Your task to perform on an android device: read, delete, or share a saved page in the chrome app Image 0: 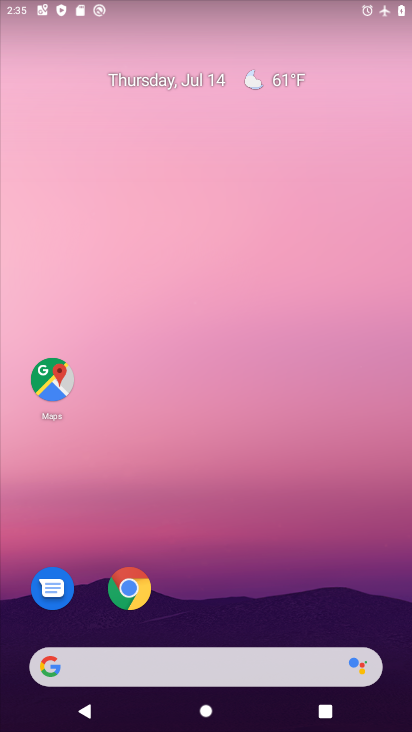
Step 0: drag from (222, 636) to (261, 298)
Your task to perform on an android device: read, delete, or share a saved page in the chrome app Image 1: 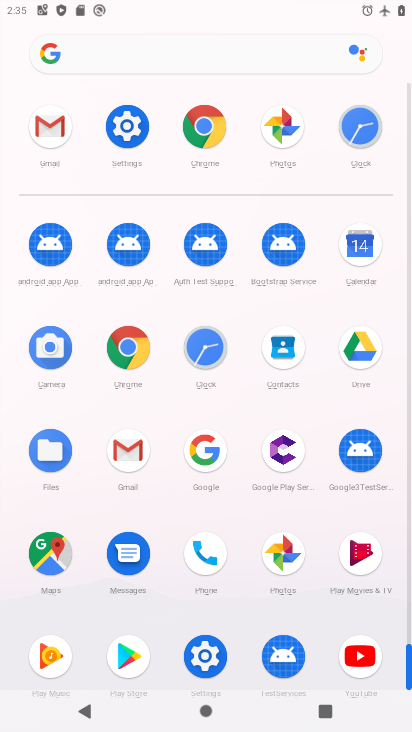
Step 1: click (200, 113)
Your task to perform on an android device: read, delete, or share a saved page in the chrome app Image 2: 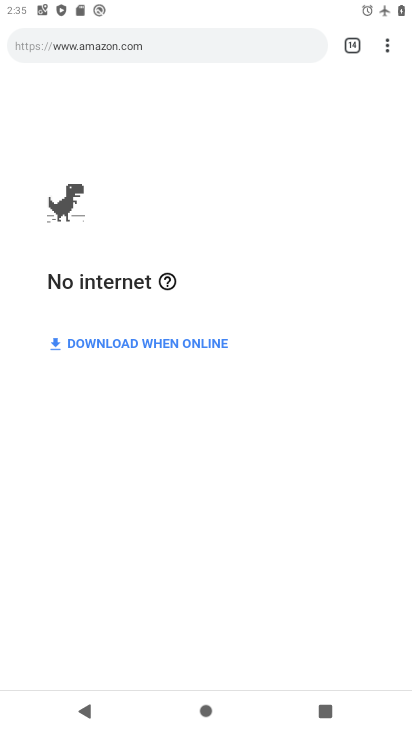
Step 2: click (388, 41)
Your task to perform on an android device: read, delete, or share a saved page in the chrome app Image 3: 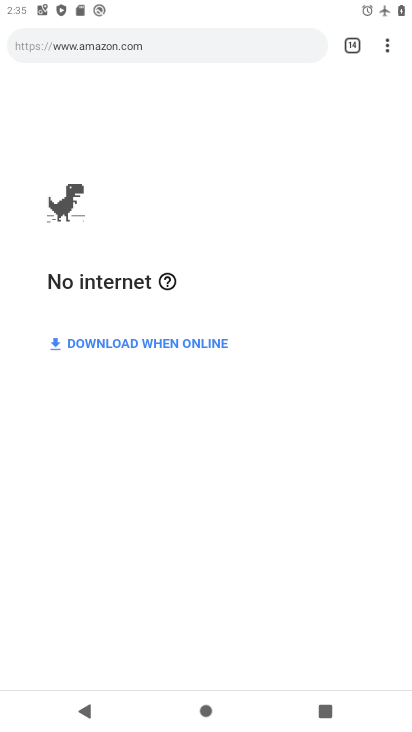
Step 3: click (393, 37)
Your task to perform on an android device: read, delete, or share a saved page in the chrome app Image 4: 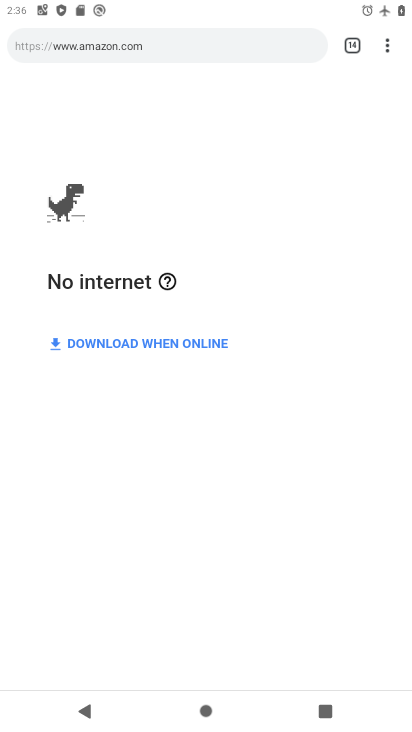
Step 4: click (387, 52)
Your task to perform on an android device: read, delete, or share a saved page in the chrome app Image 5: 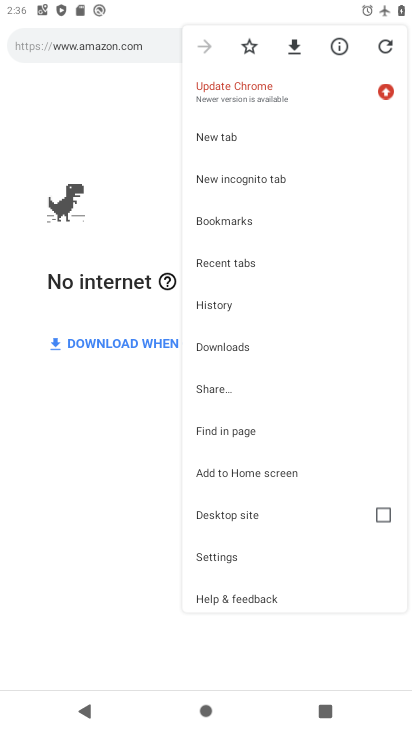
Step 5: click (237, 559)
Your task to perform on an android device: read, delete, or share a saved page in the chrome app Image 6: 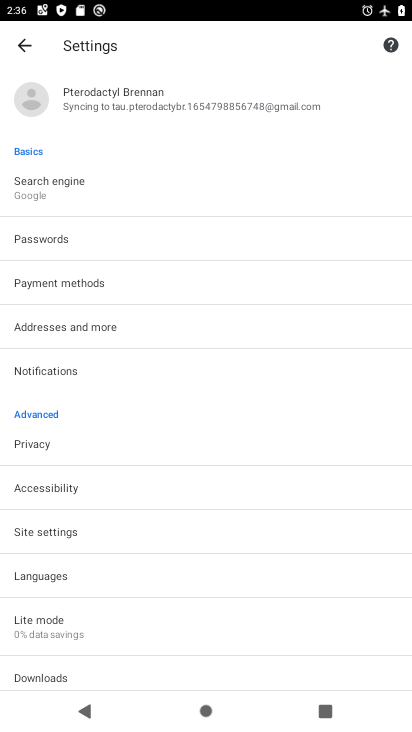
Step 6: task complete